Your task to perform on an android device: Open notification settings Image 0: 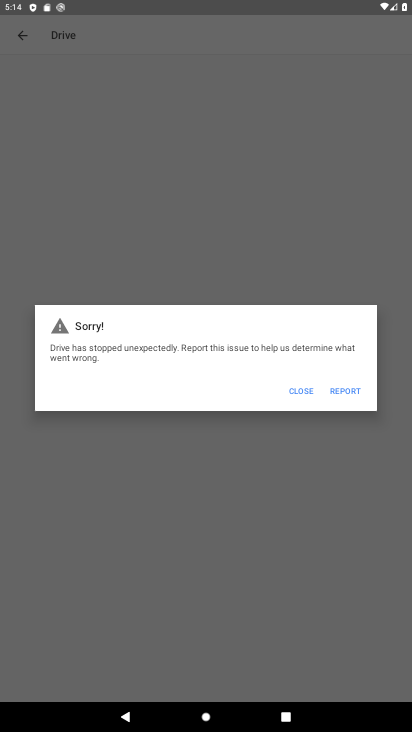
Step 0: press home button
Your task to perform on an android device: Open notification settings Image 1: 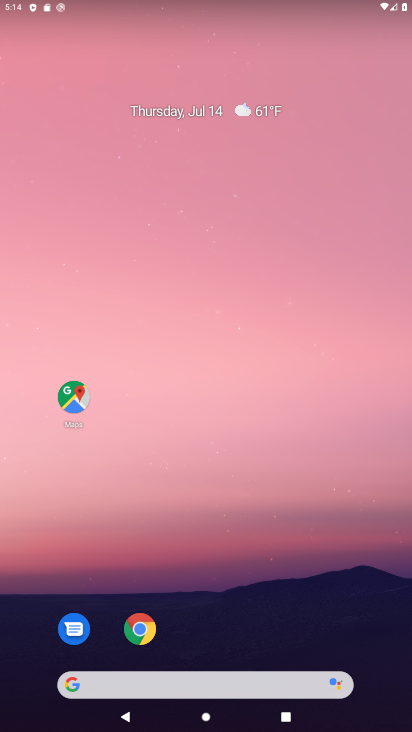
Step 1: drag from (219, 618) to (180, 55)
Your task to perform on an android device: Open notification settings Image 2: 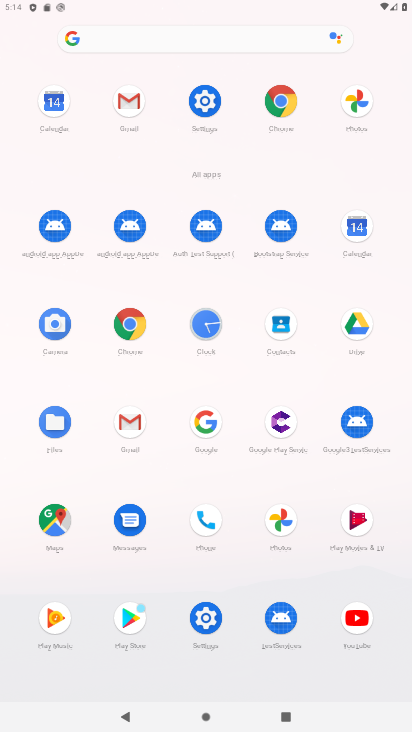
Step 2: click (215, 611)
Your task to perform on an android device: Open notification settings Image 3: 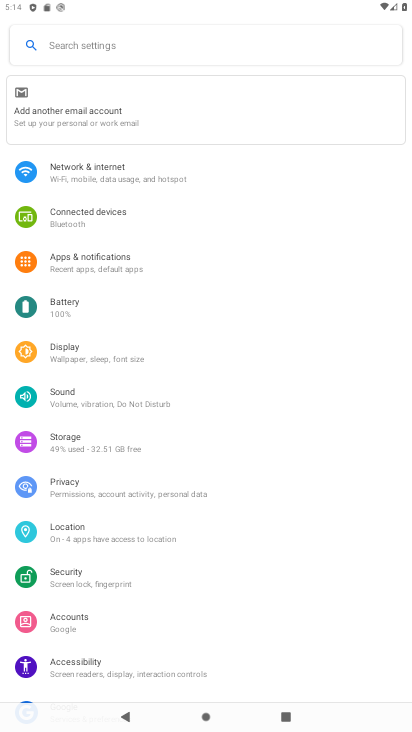
Step 3: click (75, 253)
Your task to perform on an android device: Open notification settings Image 4: 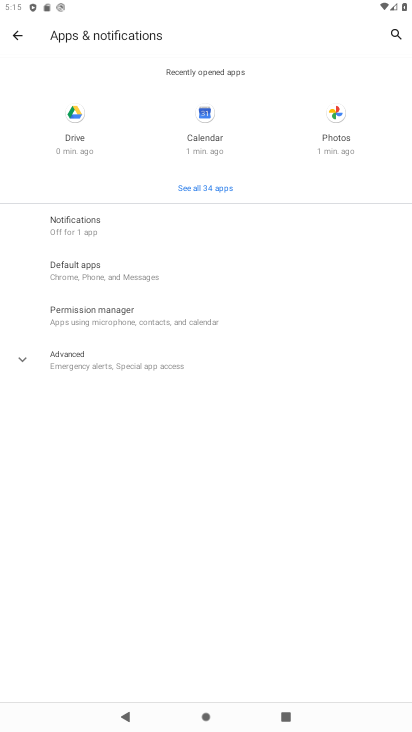
Step 4: click (82, 227)
Your task to perform on an android device: Open notification settings Image 5: 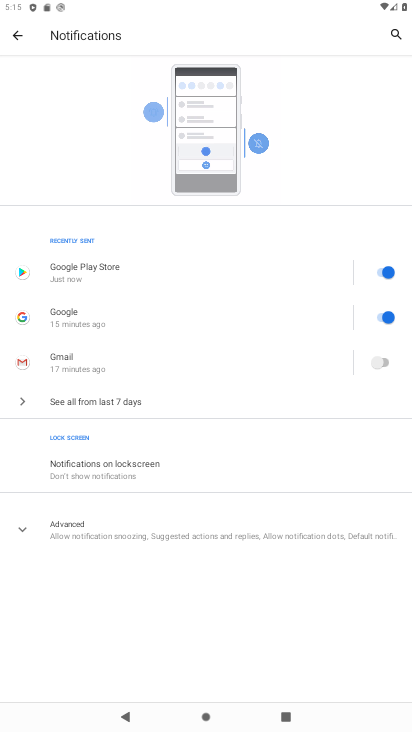
Step 5: task complete